Your task to perform on an android device: open app "Contacts" (install if not already installed) Image 0: 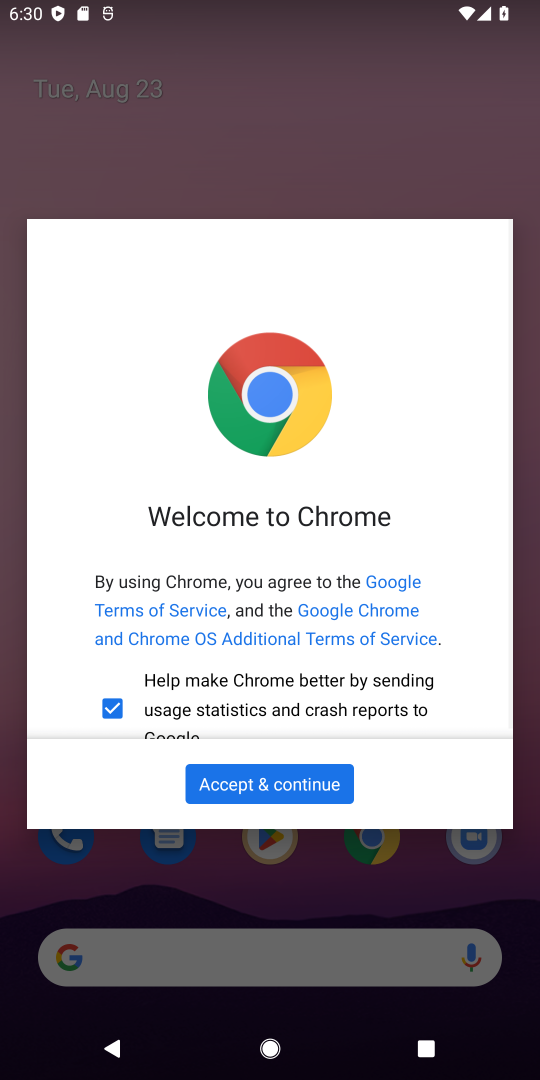
Step 0: press home button
Your task to perform on an android device: open app "Contacts" (install if not already installed) Image 1: 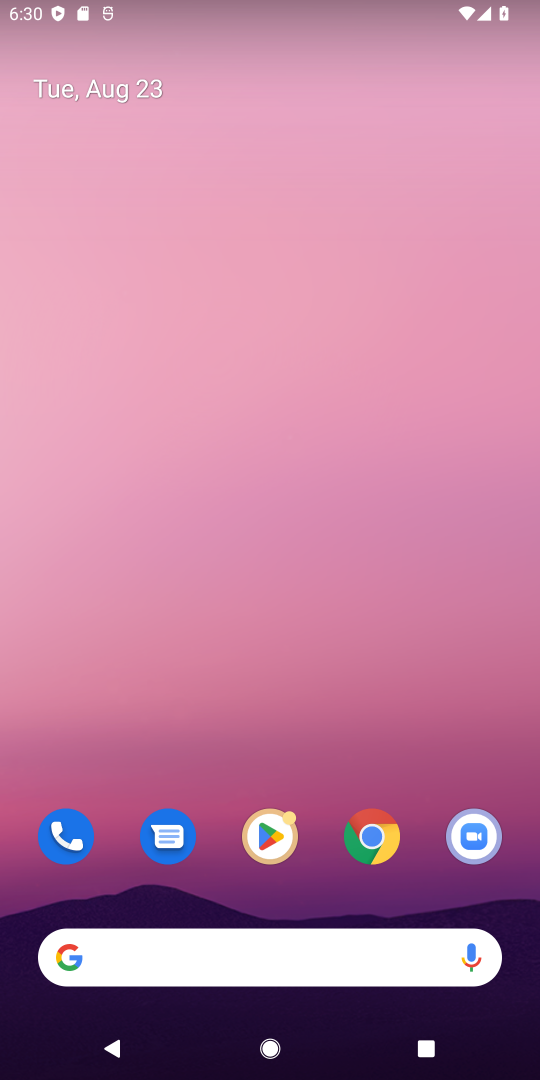
Step 1: click (269, 831)
Your task to perform on an android device: open app "Contacts" (install if not already installed) Image 2: 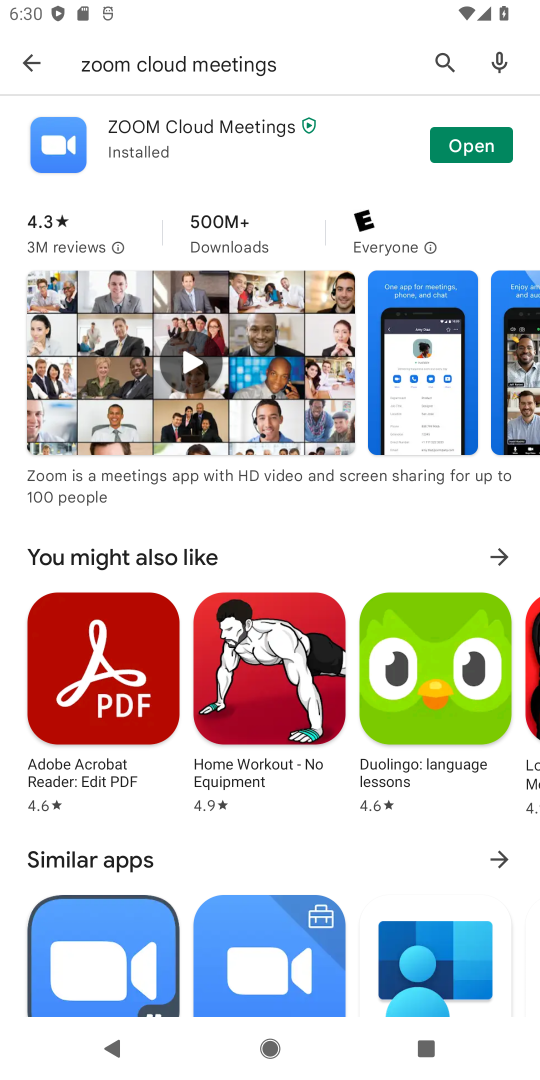
Step 2: click (444, 53)
Your task to perform on an android device: open app "Contacts" (install if not already installed) Image 3: 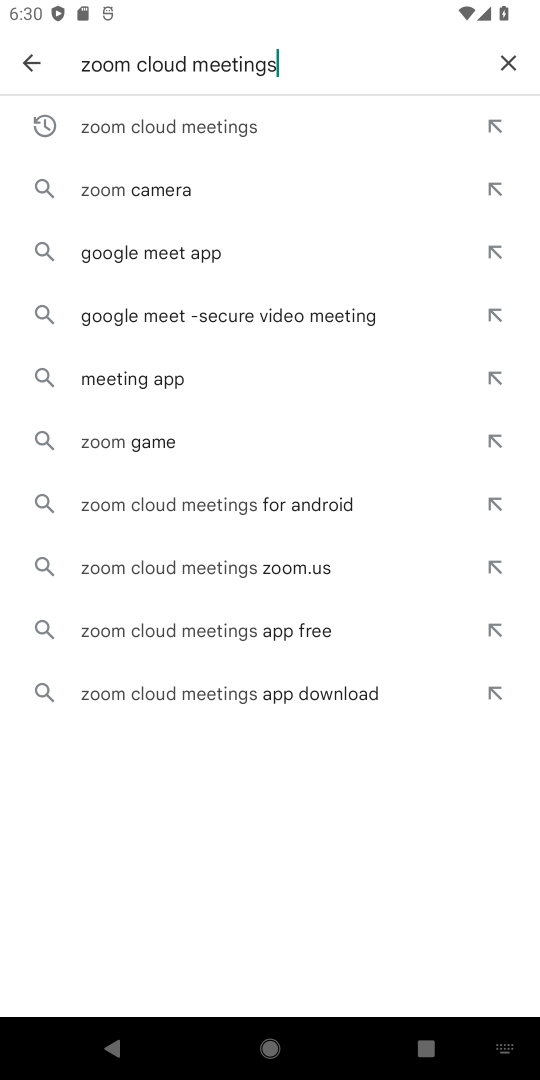
Step 3: click (506, 61)
Your task to perform on an android device: open app "Contacts" (install if not already installed) Image 4: 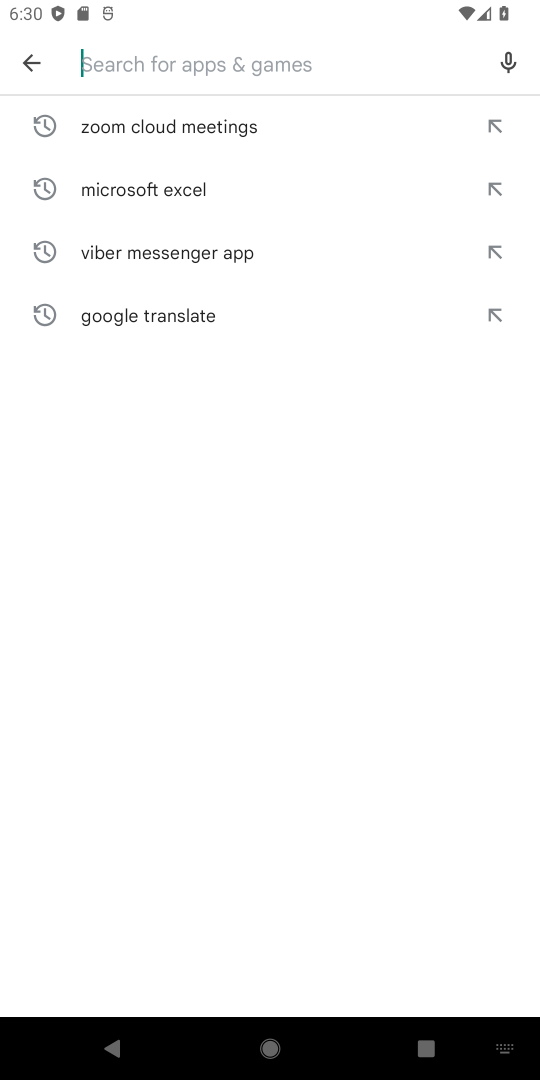
Step 4: type "Contacts"
Your task to perform on an android device: open app "Contacts" (install if not already installed) Image 5: 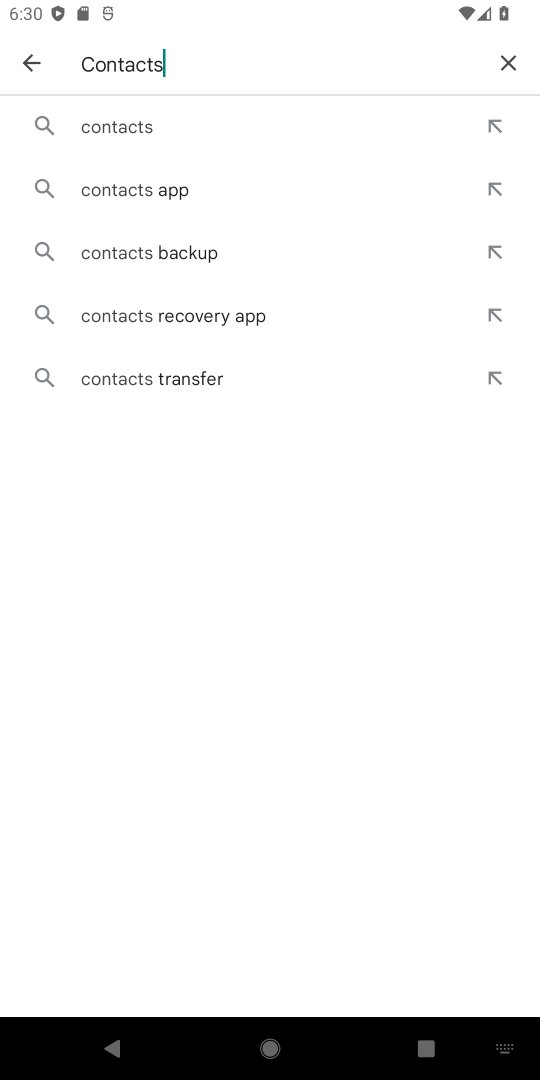
Step 5: click (107, 137)
Your task to perform on an android device: open app "Contacts" (install if not already installed) Image 6: 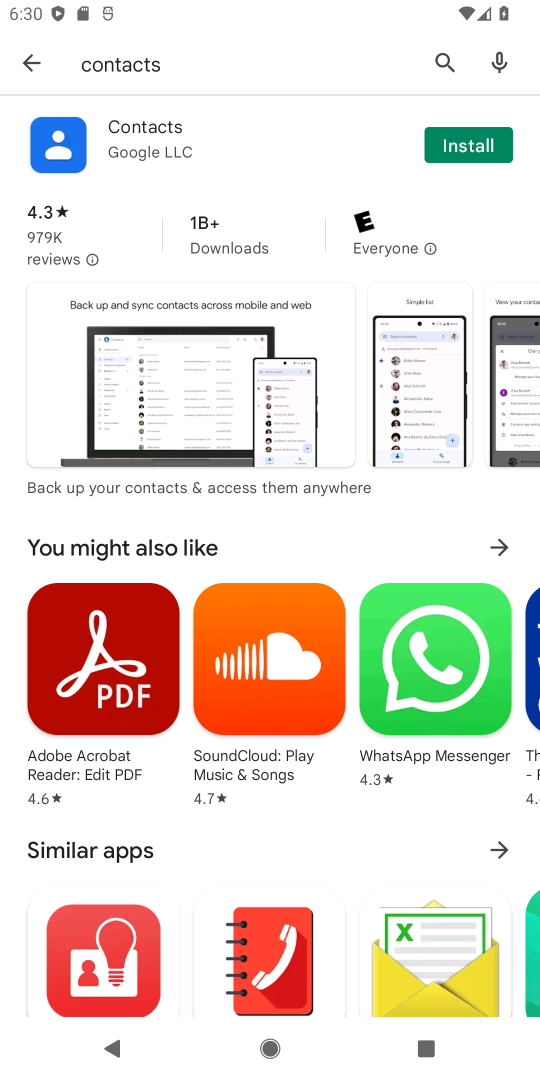
Step 6: click (488, 145)
Your task to perform on an android device: open app "Contacts" (install if not already installed) Image 7: 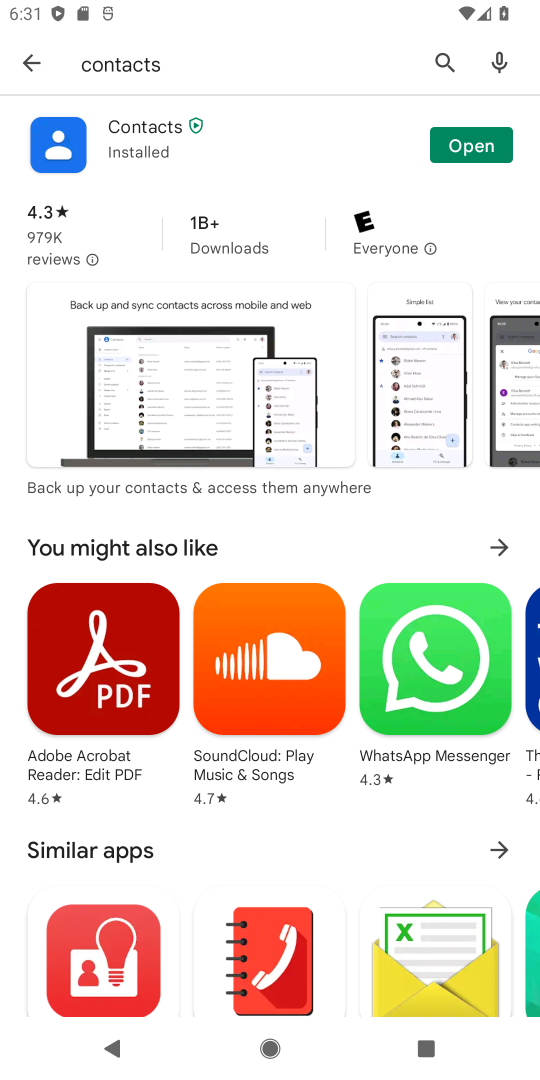
Step 7: click (471, 150)
Your task to perform on an android device: open app "Contacts" (install if not already installed) Image 8: 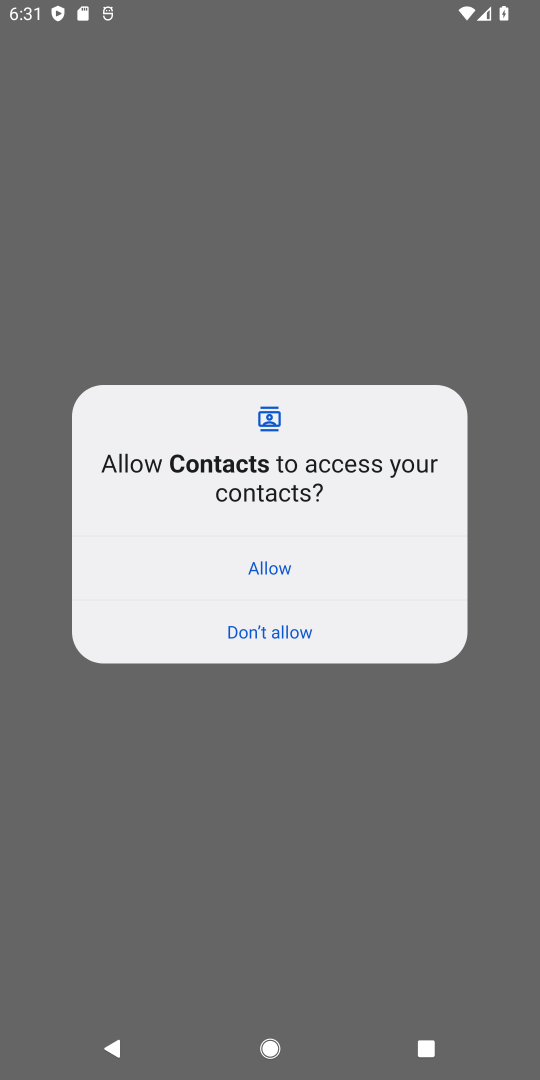
Step 8: click (305, 574)
Your task to perform on an android device: open app "Contacts" (install if not already installed) Image 9: 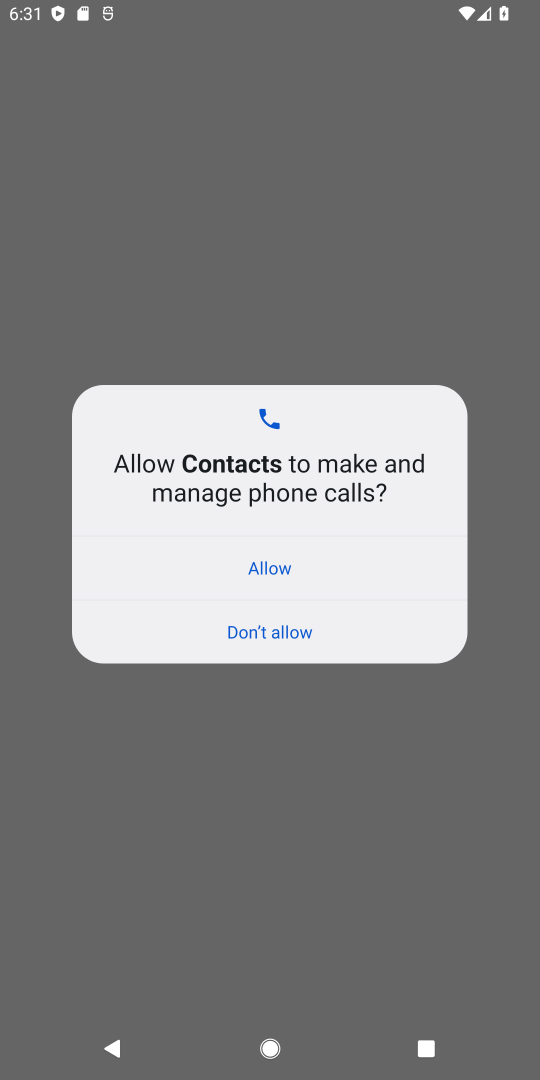
Step 9: click (263, 571)
Your task to perform on an android device: open app "Contacts" (install if not already installed) Image 10: 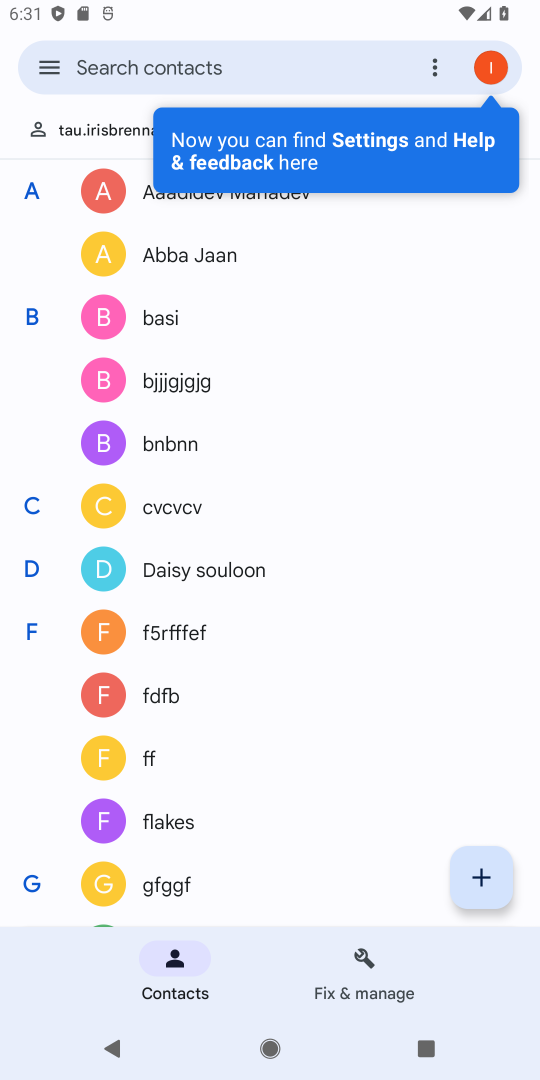
Step 10: task complete